Your task to perform on an android device: toggle data saver in the chrome app Image 0: 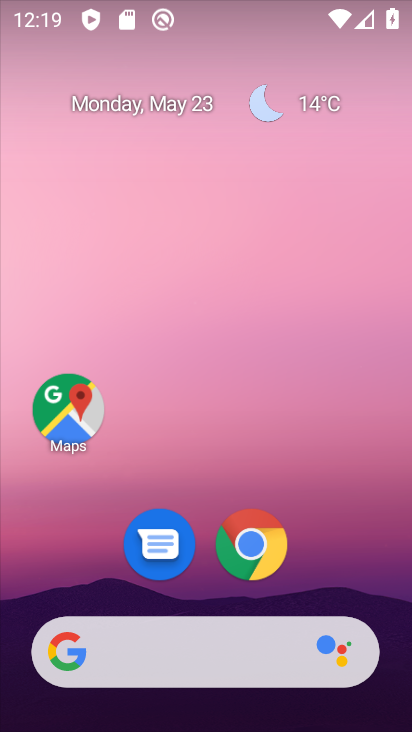
Step 0: click (247, 539)
Your task to perform on an android device: toggle data saver in the chrome app Image 1: 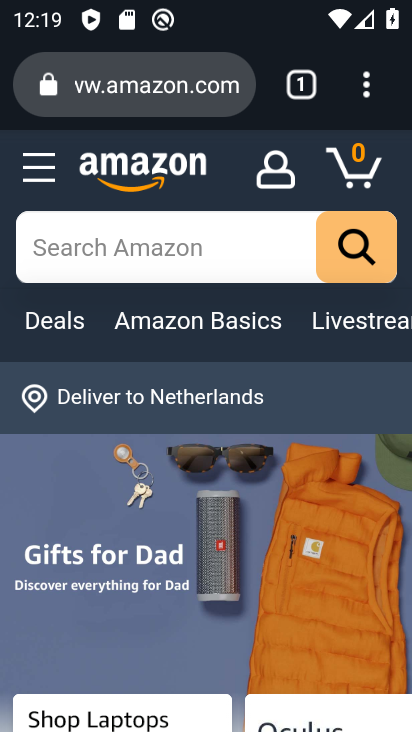
Step 1: drag from (361, 78) to (163, 604)
Your task to perform on an android device: toggle data saver in the chrome app Image 2: 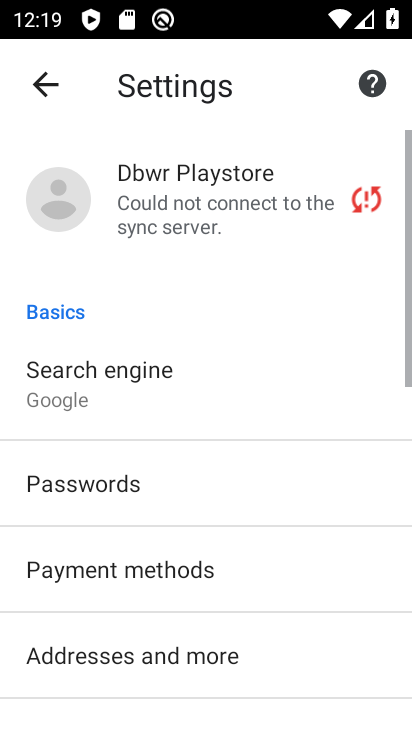
Step 2: drag from (252, 655) to (234, 24)
Your task to perform on an android device: toggle data saver in the chrome app Image 3: 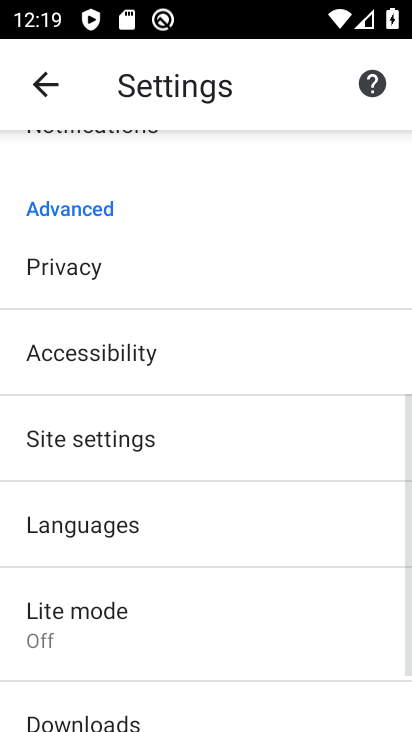
Step 3: click (159, 633)
Your task to perform on an android device: toggle data saver in the chrome app Image 4: 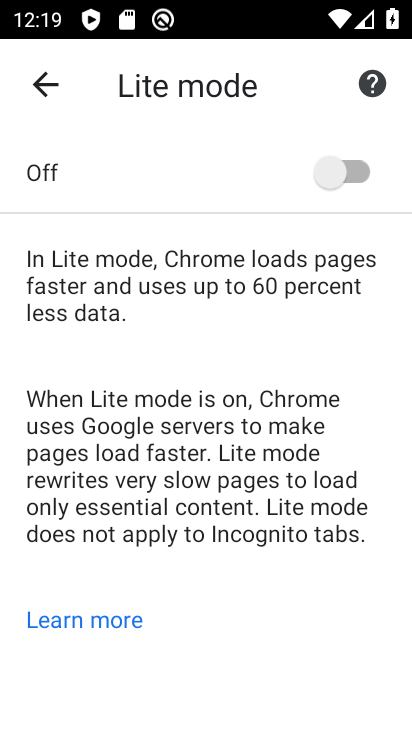
Step 4: click (340, 170)
Your task to perform on an android device: toggle data saver in the chrome app Image 5: 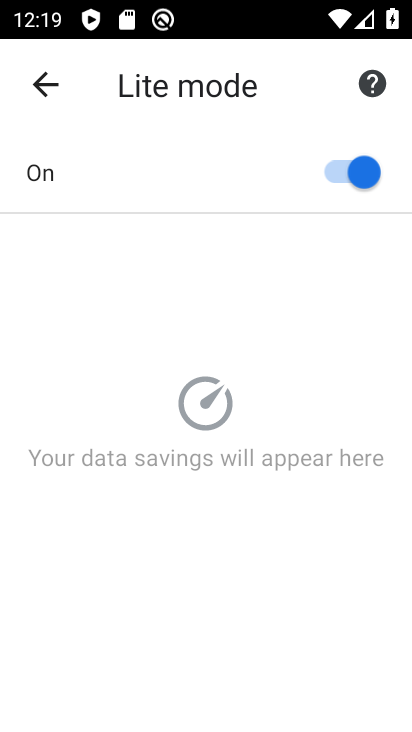
Step 5: task complete